Your task to perform on an android device: Open the calendar app, open the side menu, and click the "Day" option Image 0: 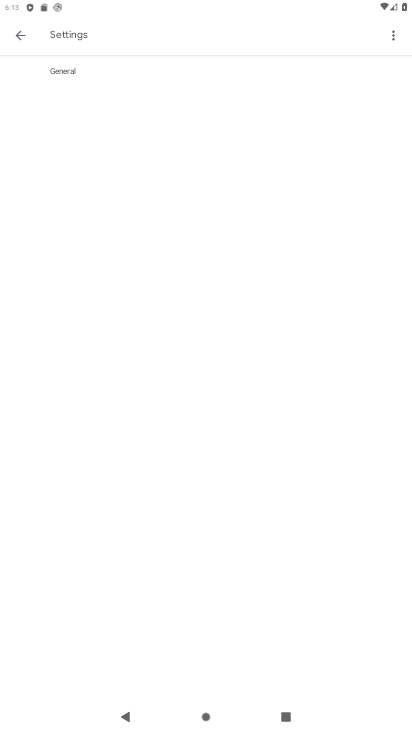
Step 0: press home button
Your task to perform on an android device: Open the calendar app, open the side menu, and click the "Day" option Image 1: 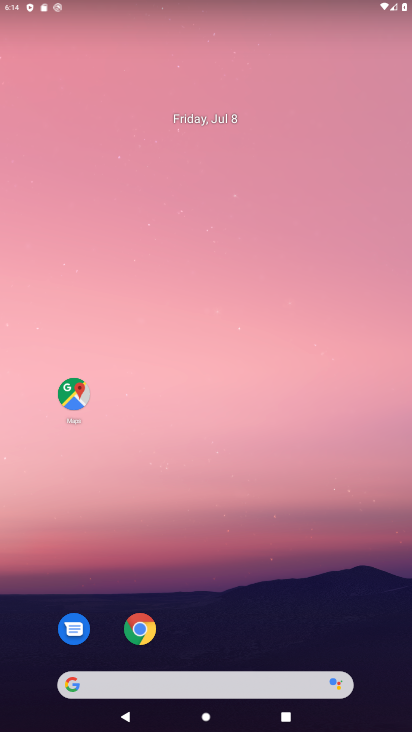
Step 1: drag from (315, 667) to (324, 119)
Your task to perform on an android device: Open the calendar app, open the side menu, and click the "Day" option Image 2: 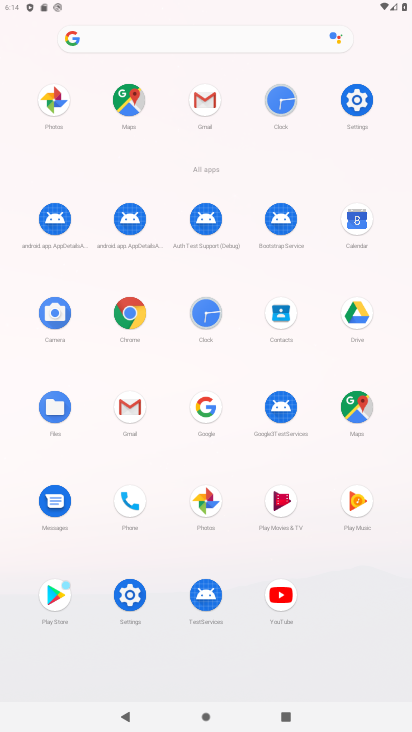
Step 2: click (351, 216)
Your task to perform on an android device: Open the calendar app, open the side menu, and click the "Day" option Image 3: 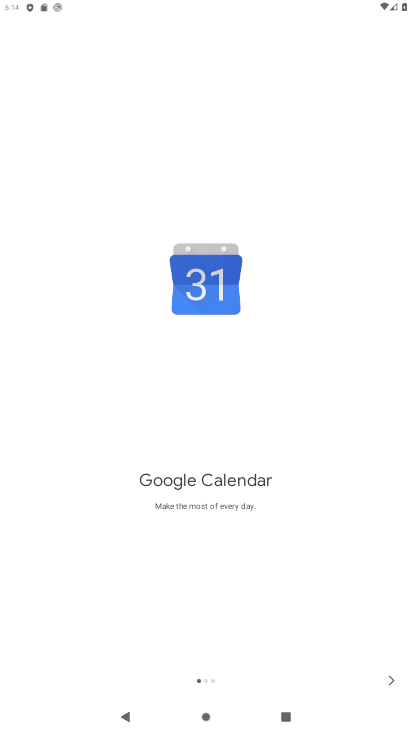
Step 3: click (387, 689)
Your task to perform on an android device: Open the calendar app, open the side menu, and click the "Day" option Image 4: 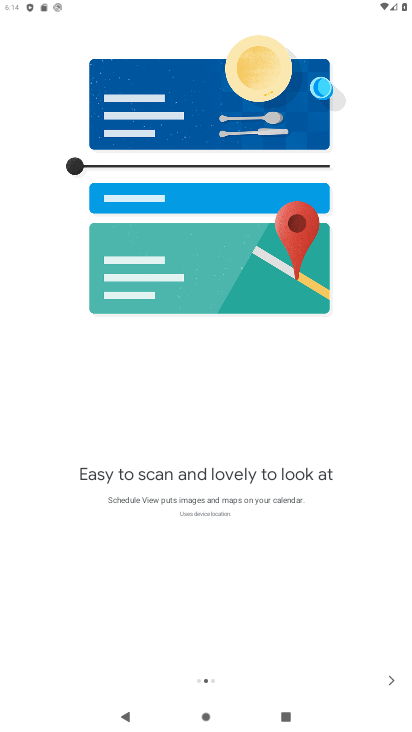
Step 4: click (387, 689)
Your task to perform on an android device: Open the calendar app, open the side menu, and click the "Day" option Image 5: 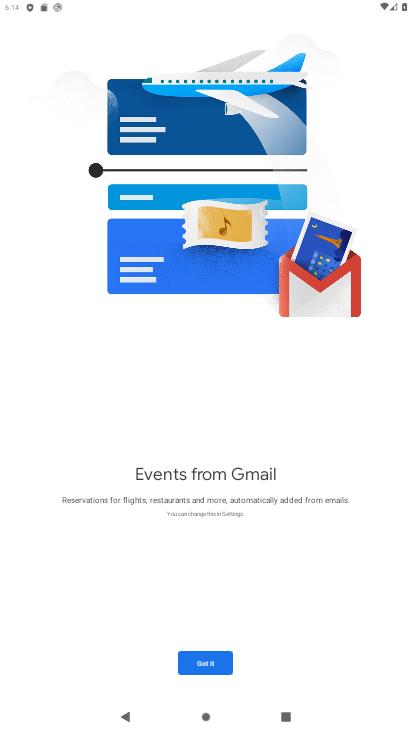
Step 5: click (213, 666)
Your task to perform on an android device: Open the calendar app, open the side menu, and click the "Day" option Image 6: 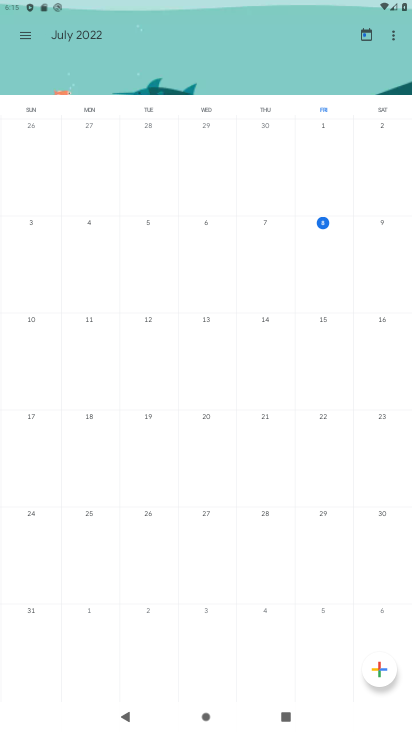
Step 6: click (26, 41)
Your task to perform on an android device: Open the calendar app, open the side menu, and click the "Day" option Image 7: 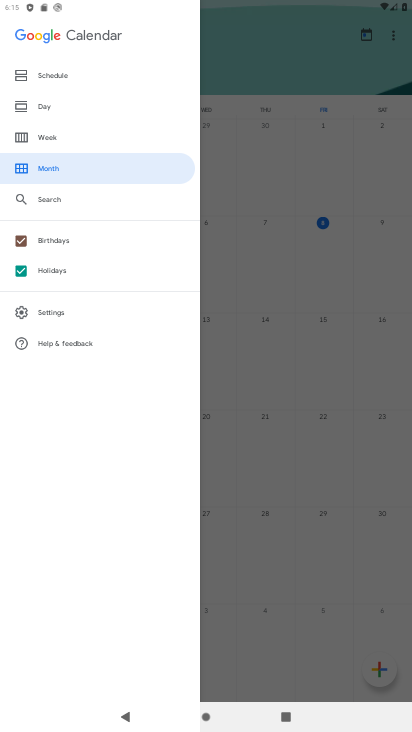
Step 7: click (37, 101)
Your task to perform on an android device: Open the calendar app, open the side menu, and click the "Day" option Image 8: 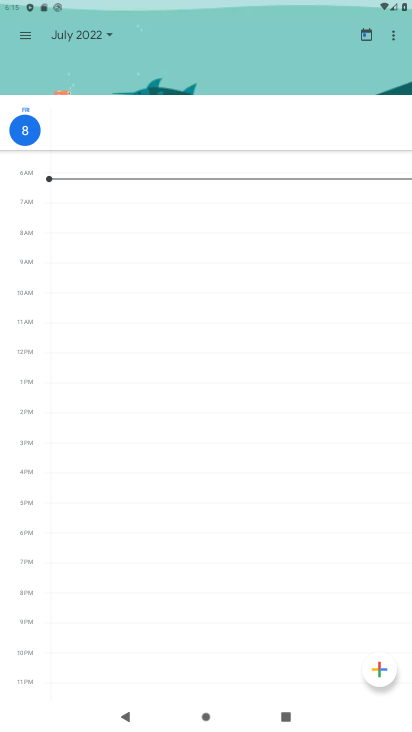
Step 8: task complete